Your task to perform on an android device: Open Youtube and go to the subscriptions tab Image 0: 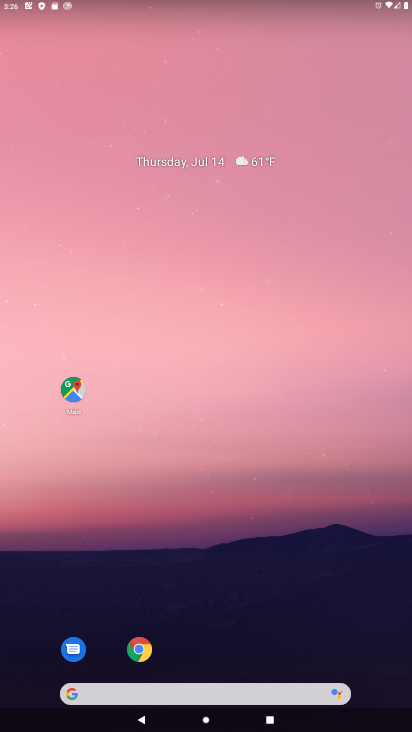
Step 0: click (224, 87)
Your task to perform on an android device: Open Youtube and go to the subscriptions tab Image 1: 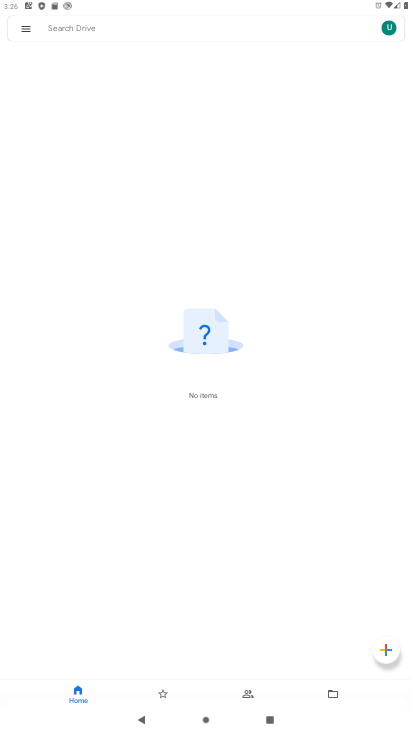
Step 1: press home button
Your task to perform on an android device: Open Youtube and go to the subscriptions tab Image 2: 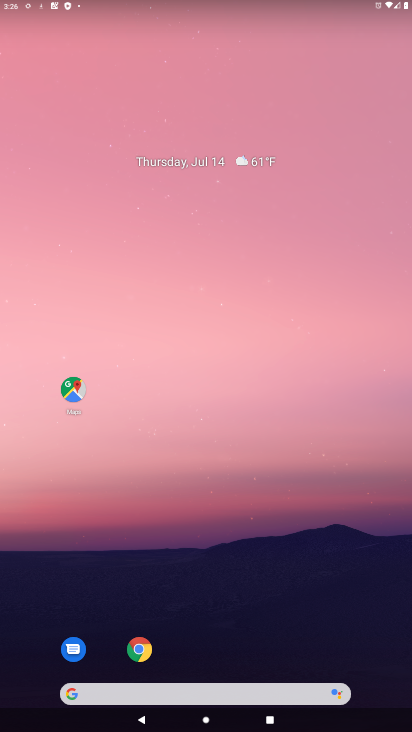
Step 2: drag from (191, 665) to (131, 54)
Your task to perform on an android device: Open Youtube and go to the subscriptions tab Image 3: 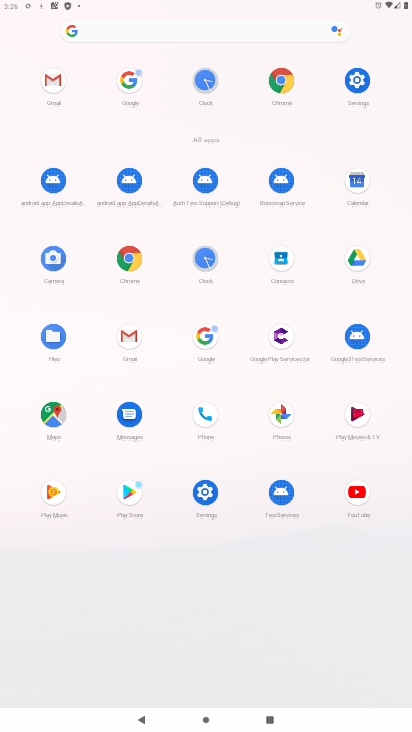
Step 3: click (370, 498)
Your task to perform on an android device: Open Youtube and go to the subscriptions tab Image 4: 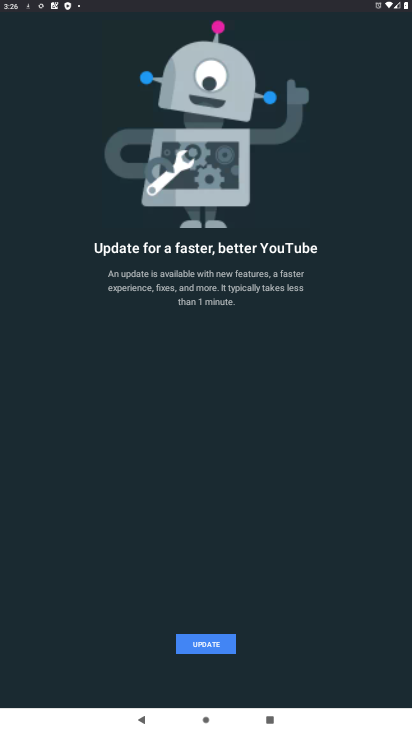
Step 4: click (193, 651)
Your task to perform on an android device: Open Youtube and go to the subscriptions tab Image 5: 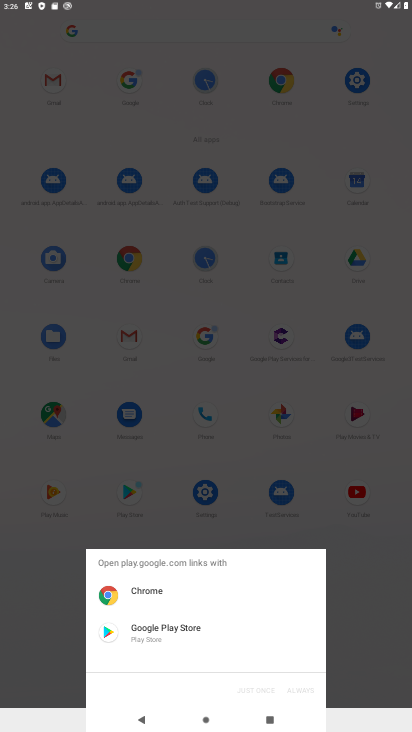
Step 5: click (184, 635)
Your task to perform on an android device: Open Youtube and go to the subscriptions tab Image 6: 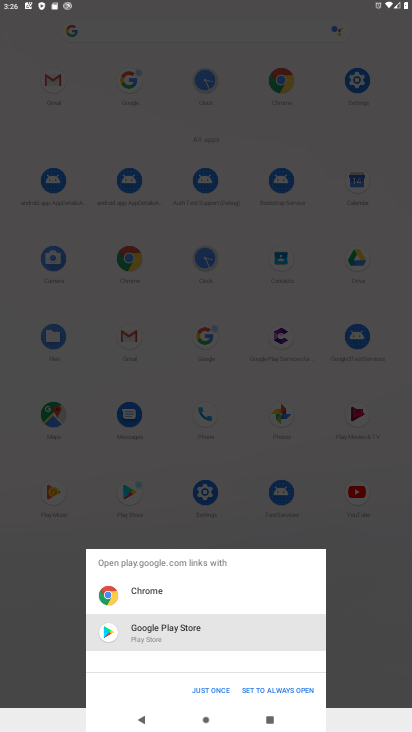
Step 6: click (203, 684)
Your task to perform on an android device: Open Youtube and go to the subscriptions tab Image 7: 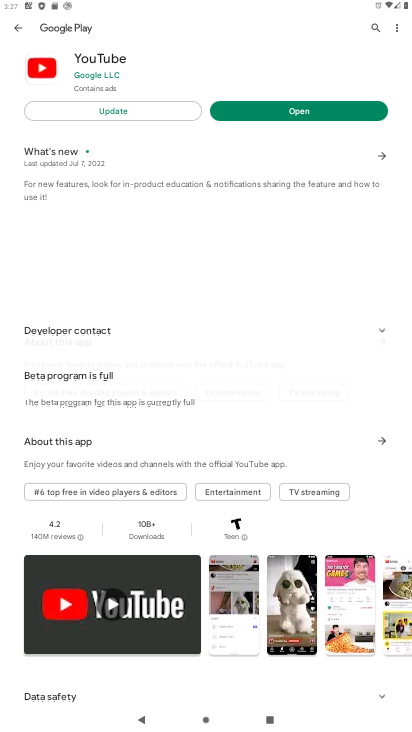
Step 7: click (167, 112)
Your task to perform on an android device: Open Youtube and go to the subscriptions tab Image 8: 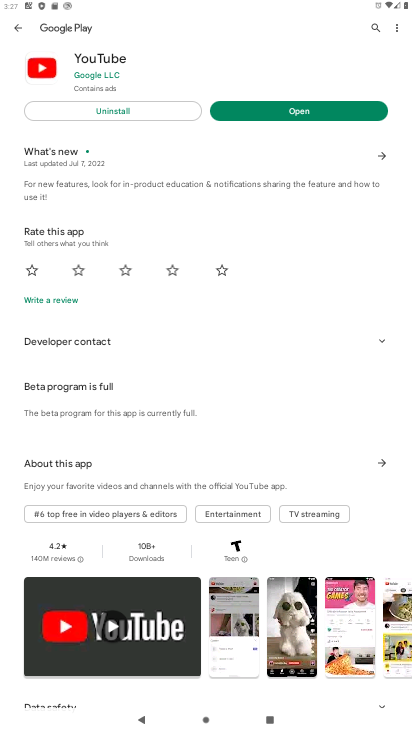
Step 8: click (281, 113)
Your task to perform on an android device: Open Youtube and go to the subscriptions tab Image 9: 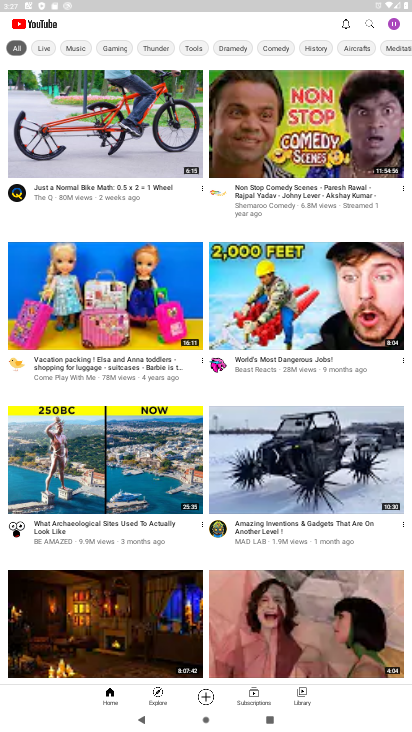
Step 9: click (252, 690)
Your task to perform on an android device: Open Youtube and go to the subscriptions tab Image 10: 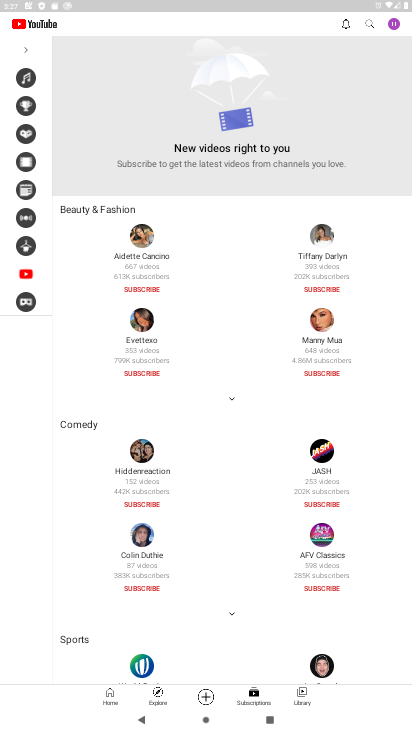
Step 10: task complete